Your task to perform on an android device: open app "Pinterest" (install if not already installed) and enter user name: "Switzerland@yahoo.com" and password: "arithmetics" Image 0: 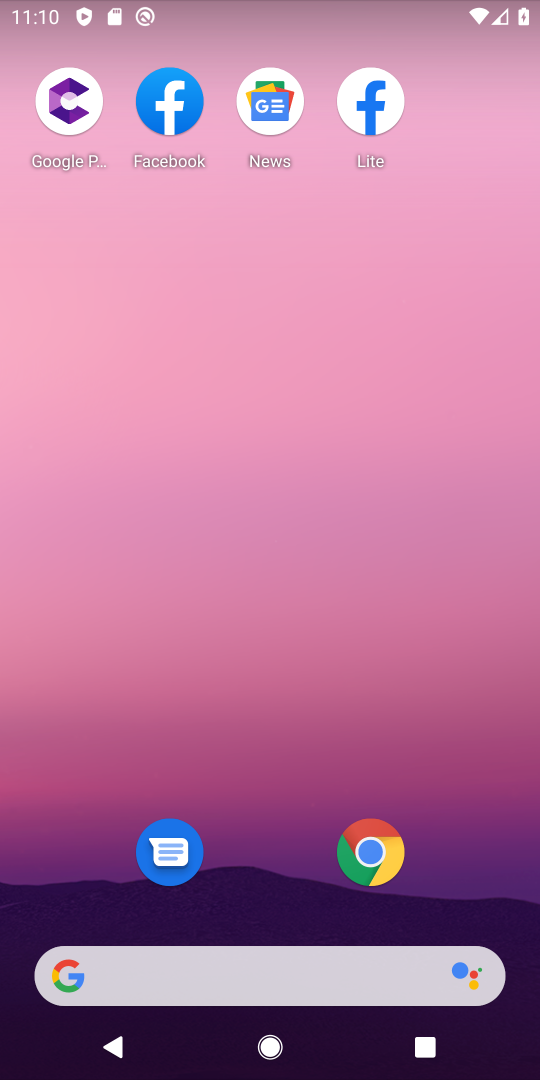
Step 0: drag from (223, 911) to (263, 114)
Your task to perform on an android device: open app "Pinterest" (install if not already installed) and enter user name: "Switzerland@yahoo.com" and password: "arithmetics" Image 1: 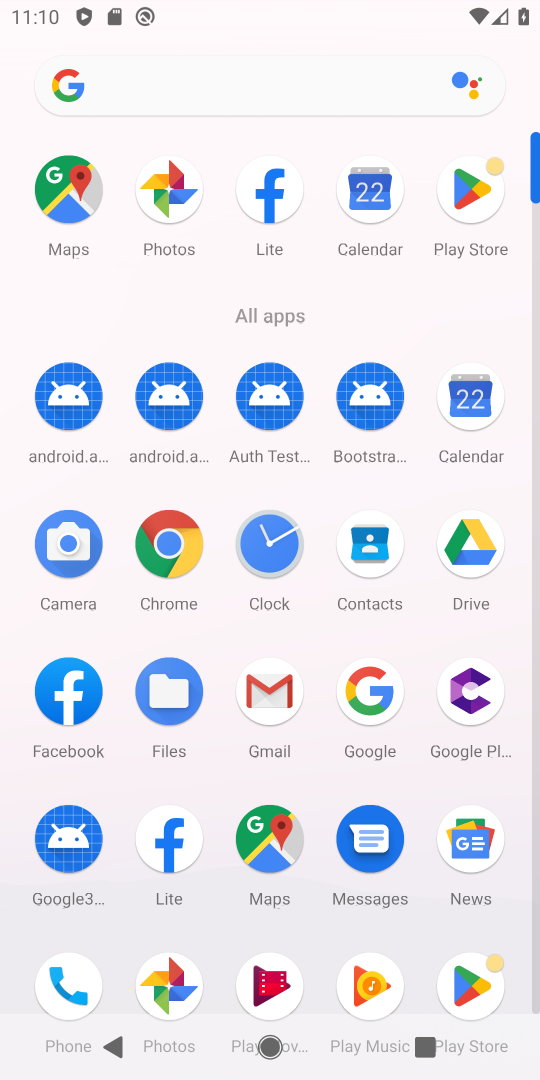
Step 1: click (471, 222)
Your task to perform on an android device: open app "Pinterest" (install if not already installed) and enter user name: "Switzerland@yahoo.com" and password: "arithmetics" Image 2: 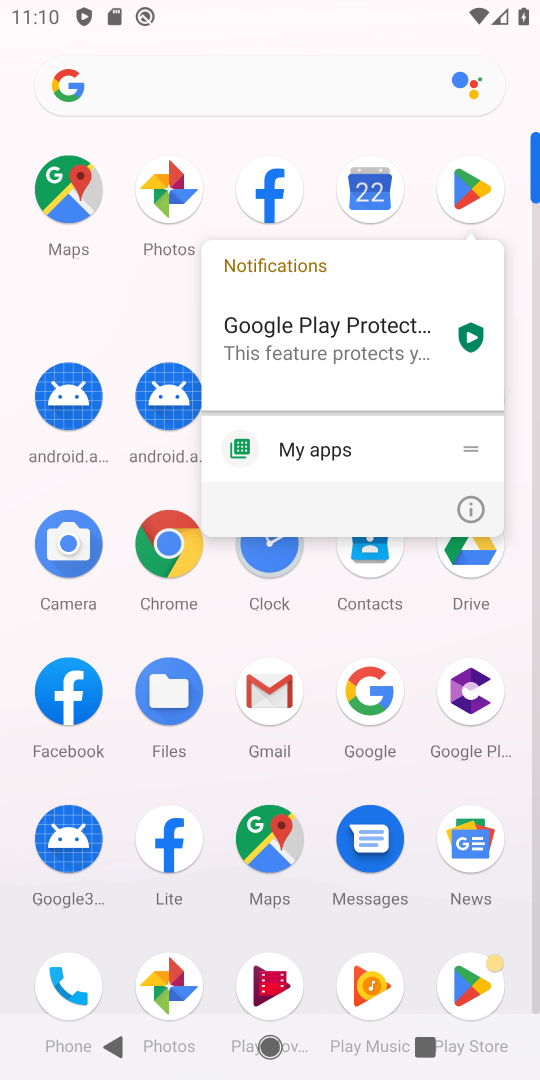
Step 2: click (458, 167)
Your task to perform on an android device: open app "Pinterest" (install if not already installed) and enter user name: "Switzerland@yahoo.com" and password: "arithmetics" Image 3: 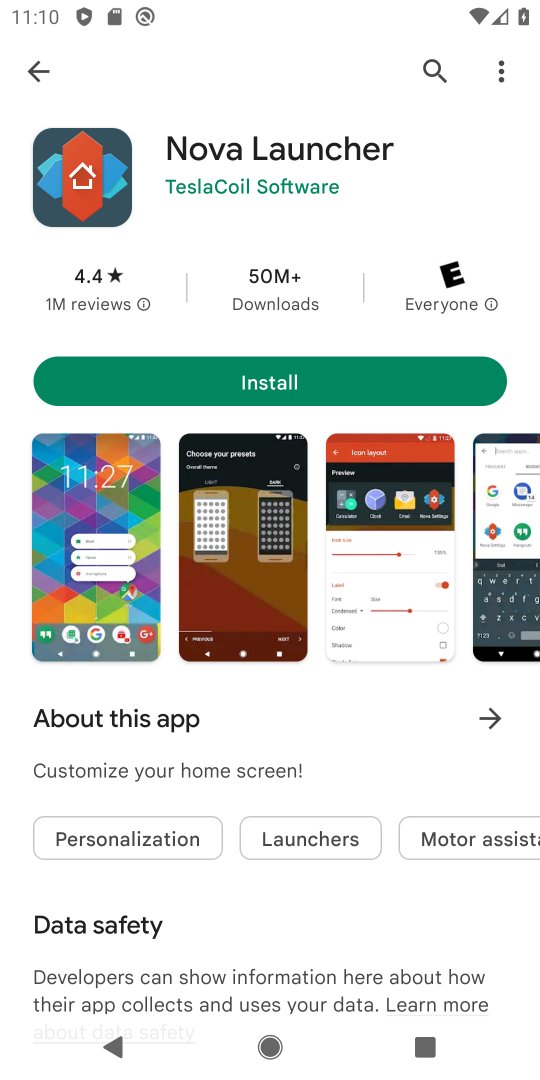
Step 3: click (28, 68)
Your task to perform on an android device: open app "Pinterest" (install if not already installed) and enter user name: "Switzerland@yahoo.com" and password: "arithmetics" Image 4: 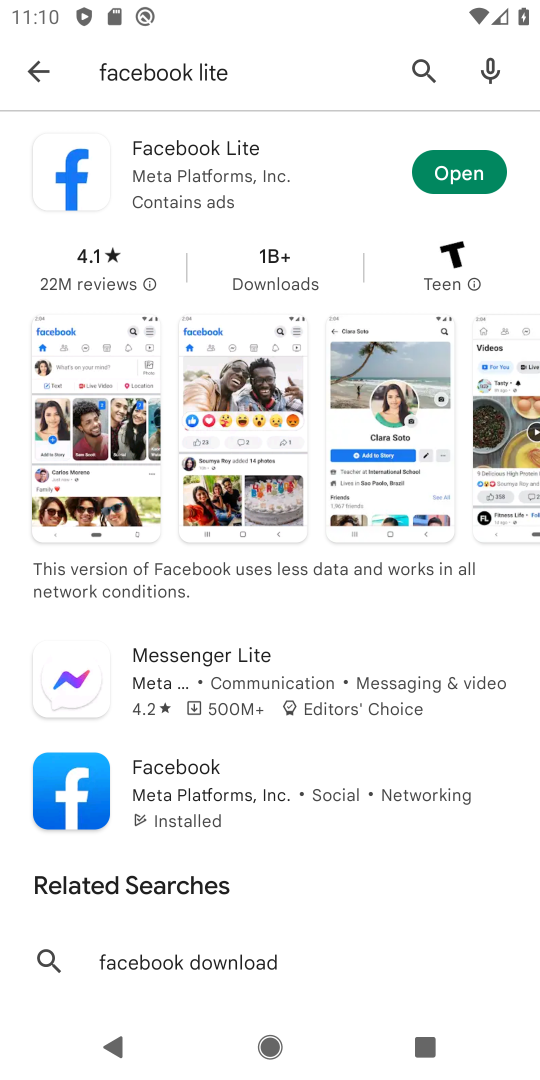
Step 4: click (208, 56)
Your task to perform on an android device: open app "Pinterest" (install if not already installed) and enter user name: "Switzerland@yahoo.com" and password: "arithmetics" Image 5: 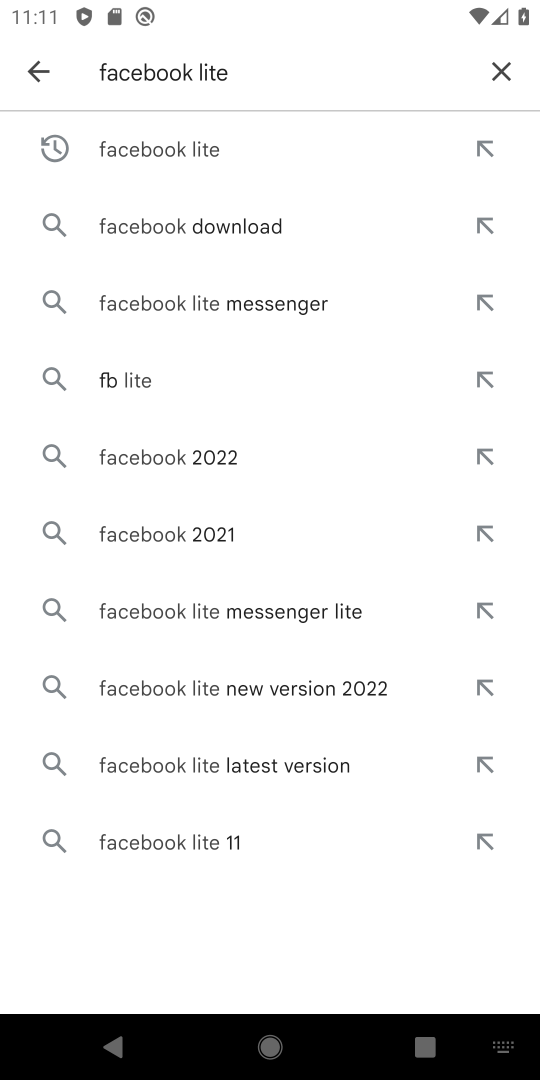
Step 5: click (482, 64)
Your task to perform on an android device: open app "Pinterest" (install if not already installed) and enter user name: "Switzerland@yahoo.com" and password: "arithmetics" Image 6: 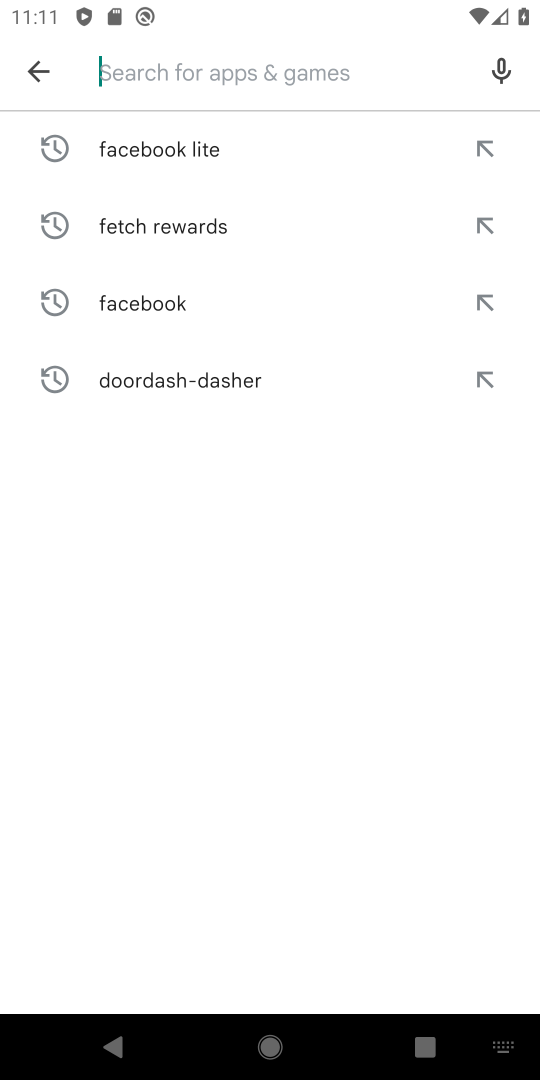
Step 6: type "Pinterest"
Your task to perform on an android device: open app "Pinterest" (install if not already installed) and enter user name: "Switzerland@yahoo.com" and password: "arithmetics" Image 7: 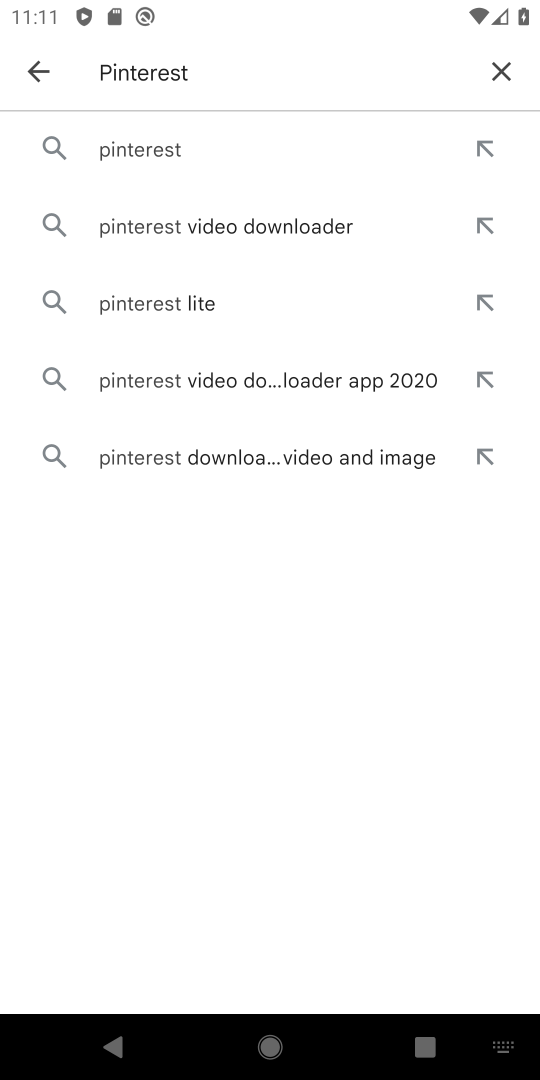
Step 7: click (202, 153)
Your task to perform on an android device: open app "Pinterest" (install if not already installed) and enter user name: "Switzerland@yahoo.com" and password: "arithmetics" Image 8: 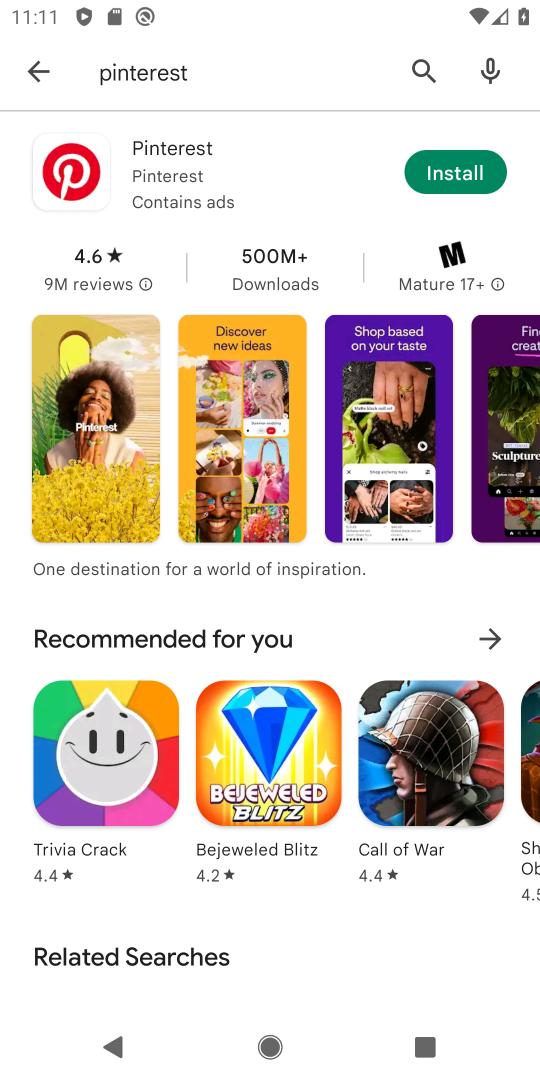
Step 8: click (443, 159)
Your task to perform on an android device: open app "Pinterest" (install if not already installed) and enter user name: "Switzerland@yahoo.com" and password: "arithmetics" Image 9: 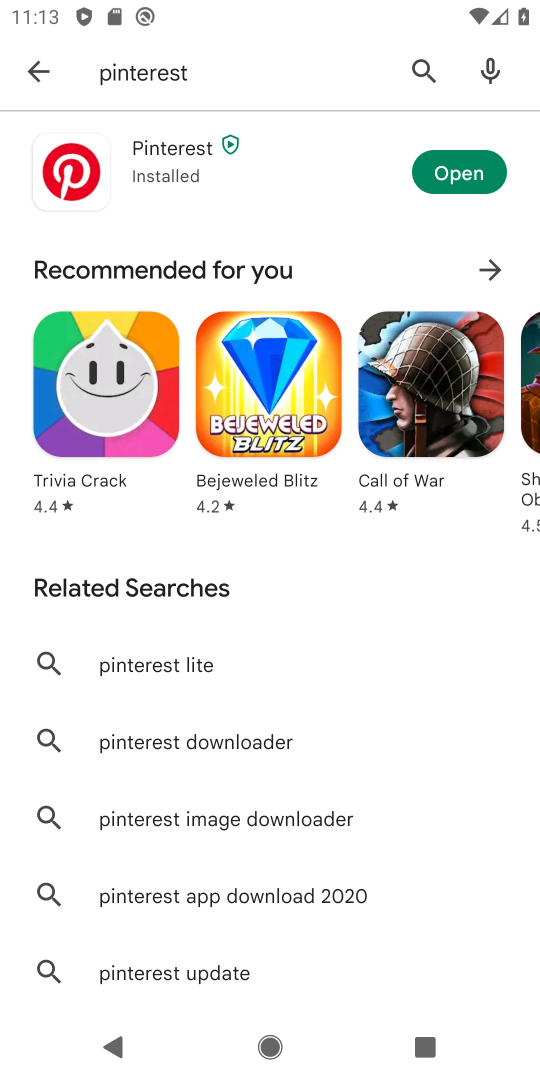
Step 9: click (479, 163)
Your task to perform on an android device: open app "Pinterest" (install if not already installed) and enter user name: "Switzerland@yahoo.com" and password: "arithmetics" Image 10: 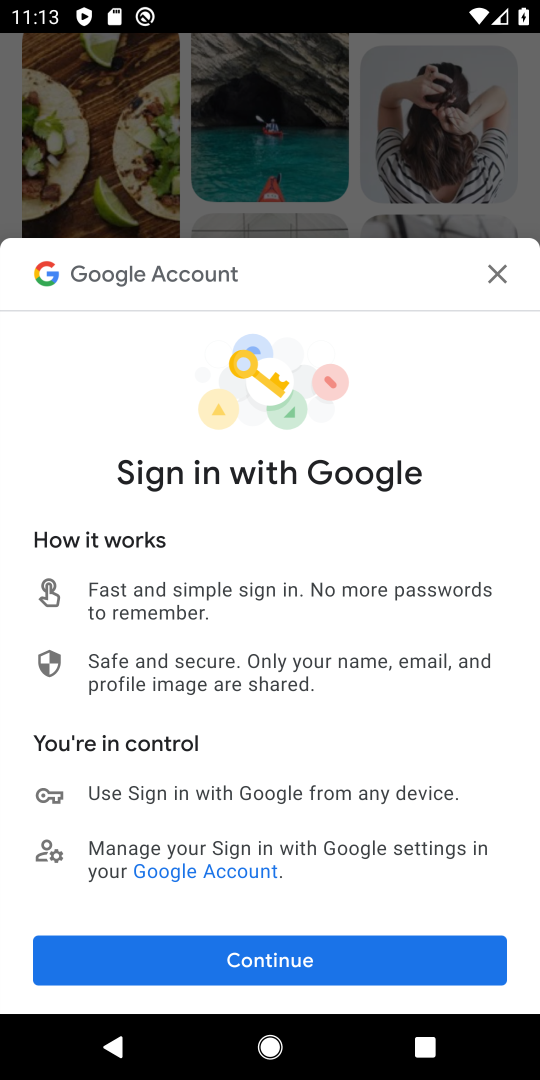
Step 10: click (295, 949)
Your task to perform on an android device: open app "Pinterest" (install if not already installed) and enter user name: "Switzerland@yahoo.com" and password: "arithmetics" Image 11: 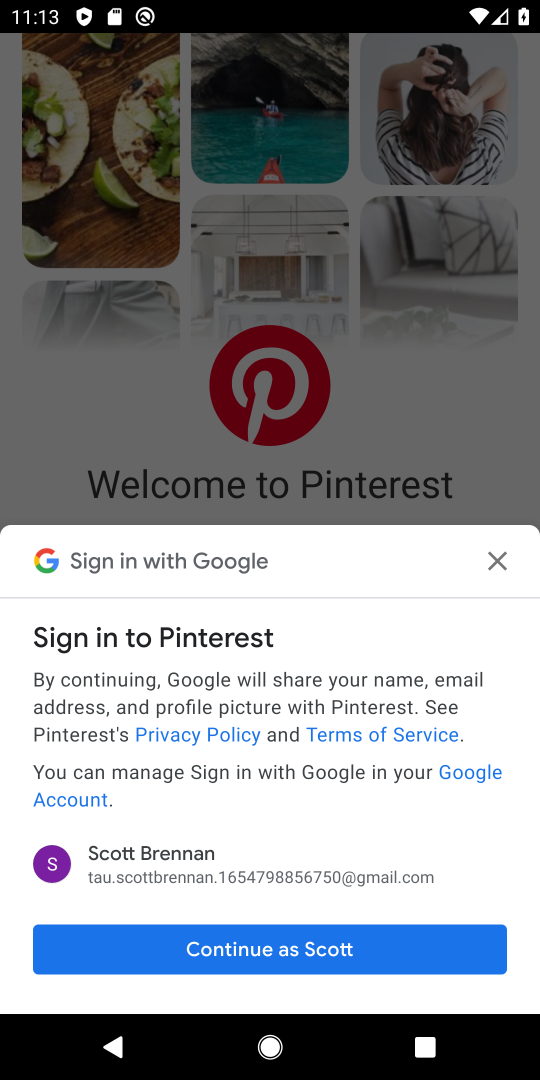
Step 11: click (504, 555)
Your task to perform on an android device: open app "Pinterest" (install if not already installed) and enter user name: "Switzerland@yahoo.com" and password: "arithmetics" Image 12: 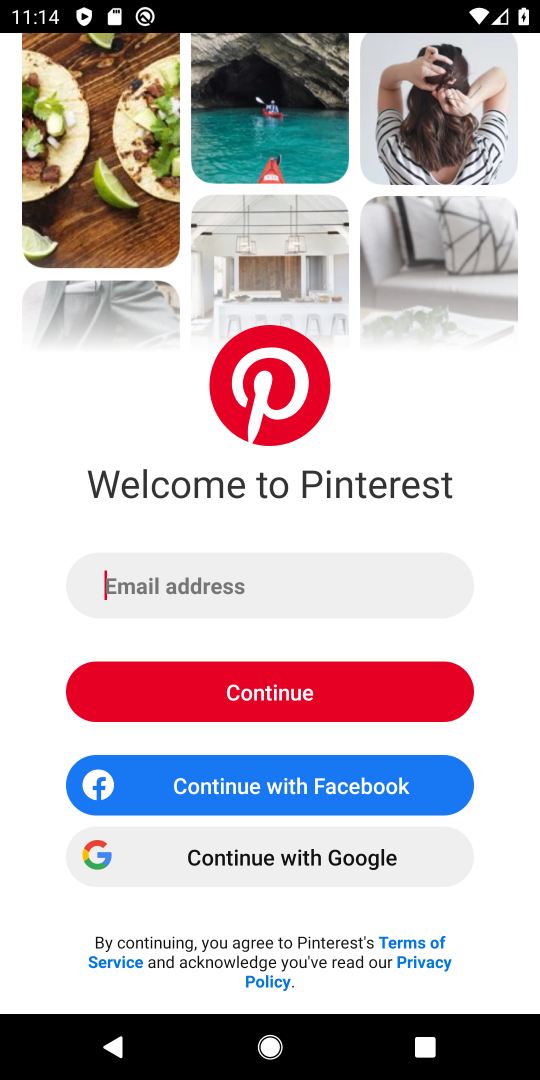
Step 12: type "Switzerland@yahoo.com"
Your task to perform on an android device: open app "Pinterest" (install if not already installed) and enter user name: "Switzerland@yahoo.com" and password: "arithmetics" Image 13: 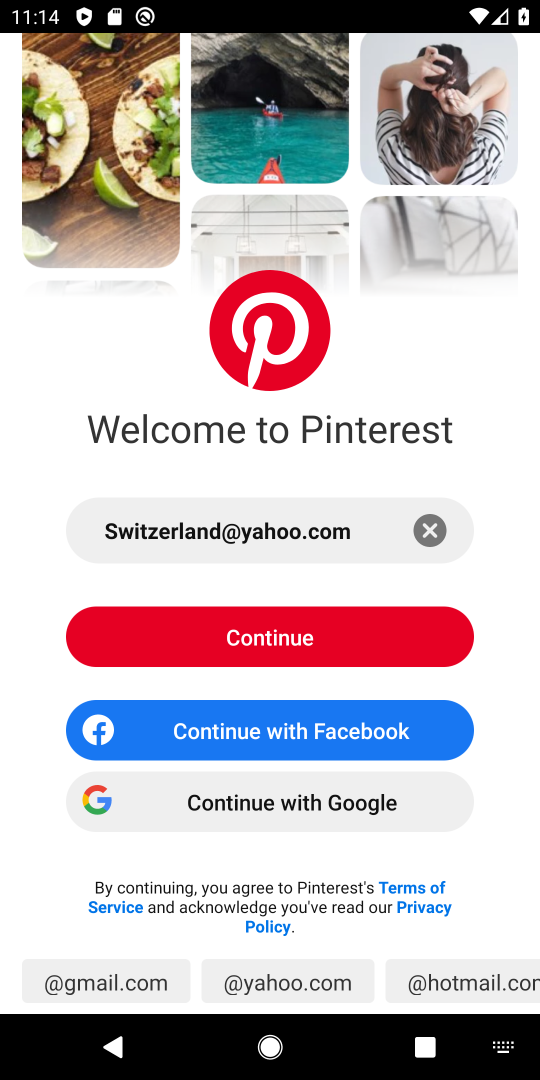
Step 13: click (356, 649)
Your task to perform on an android device: open app "Pinterest" (install if not already installed) and enter user name: "Switzerland@yahoo.com" and password: "arithmetics" Image 14: 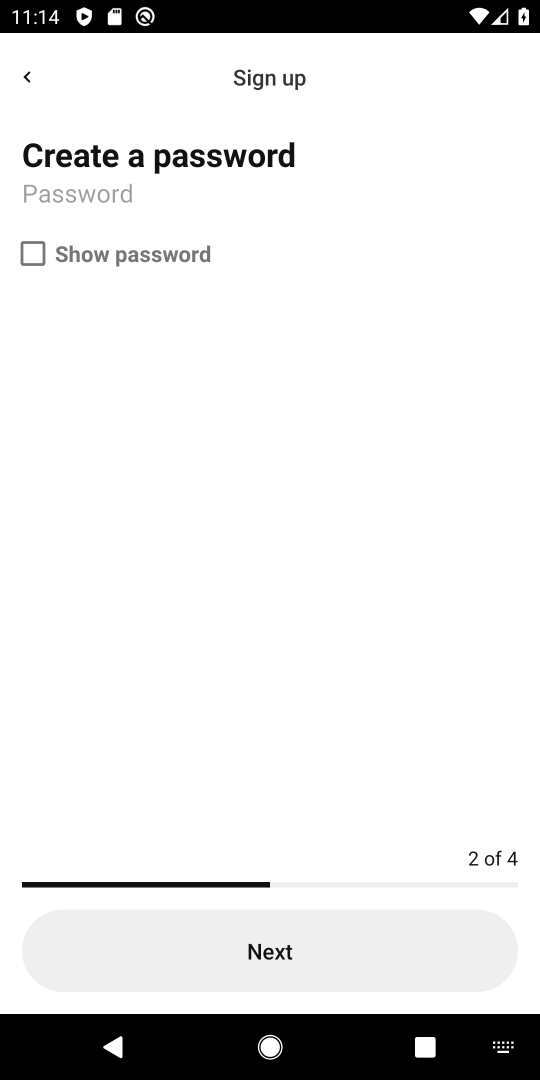
Step 14: type "arithmetics"
Your task to perform on an android device: open app "Pinterest" (install if not already installed) and enter user name: "Switzerland@yahoo.com" and password: "arithmetics" Image 15: 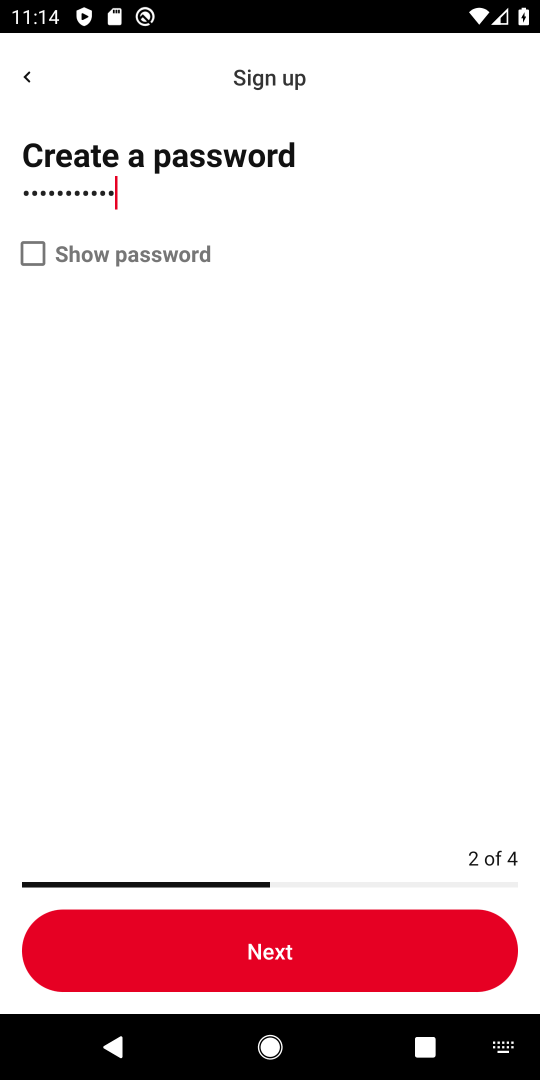
Step 15: click (36, 258)
Your task to perform on an android device: open app "Pinterest" (install if not already installed) and enter user name: "Switzerland@yahoo.com" and password: "arithmetics" Image 16: 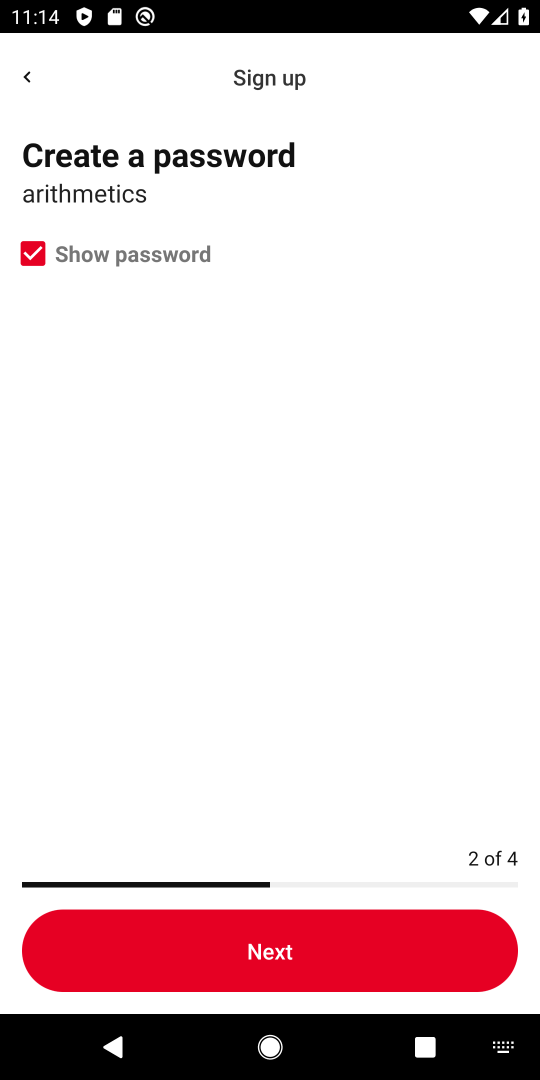
Step 16: click (360, 947)
Your task to perform on an android device: open app "Pinterest" (install if not already installed) and enter user name: "Switzerland@yahoo.com" and password: "arithmetics" Image 17: 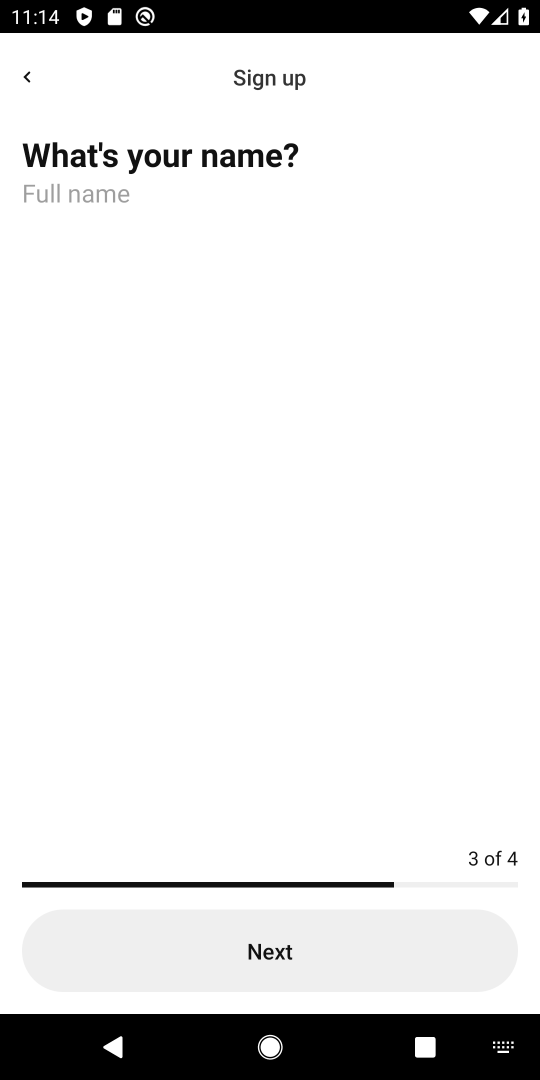
Step 17: click (28, 68)
Your task to perform on an android device: open app "Pinterest" (install if not already installed) and enter user name: "Switzerland@yahoo.com" and password: "arithmetics" Image 18: 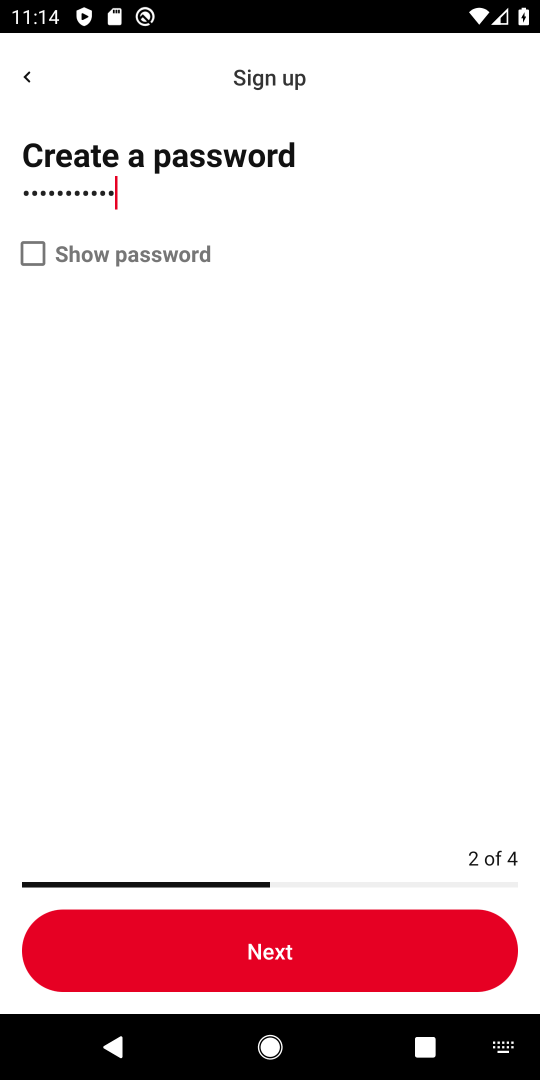
Step 18: click (28, 68)
Your task to perform on an android device: open app "Pinterest" (install if not already installed) and enter user name: "Switzerland@yahoo.com" and password: "arithmetics" Image 19: 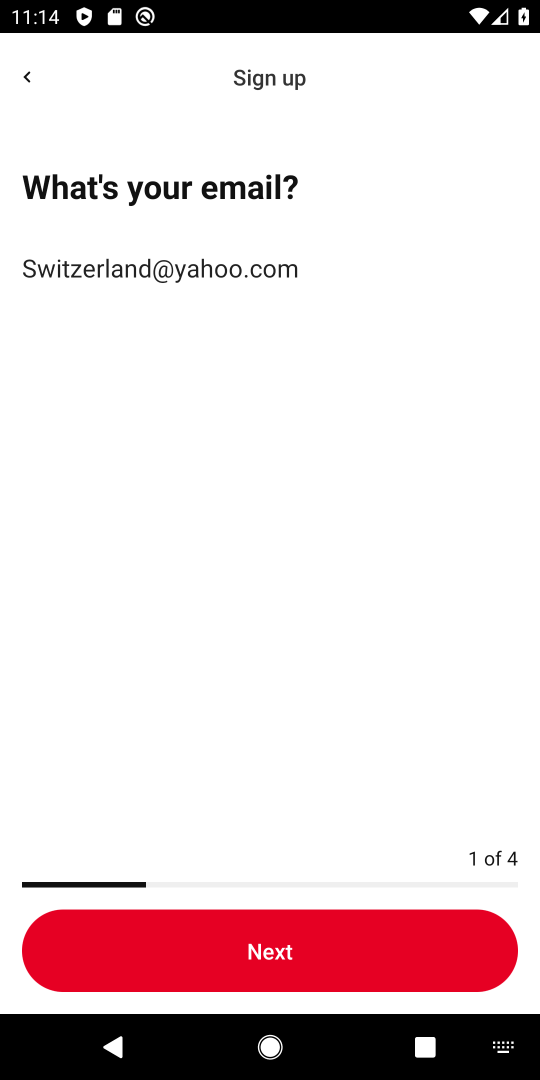
Step 19: click (28, 68)
Your task to perform on an android device: open app "Pinterest" (install if not already installed) and enter user name: "Switzerland@yahoo.com" and password: "arithmetics" Image 20: 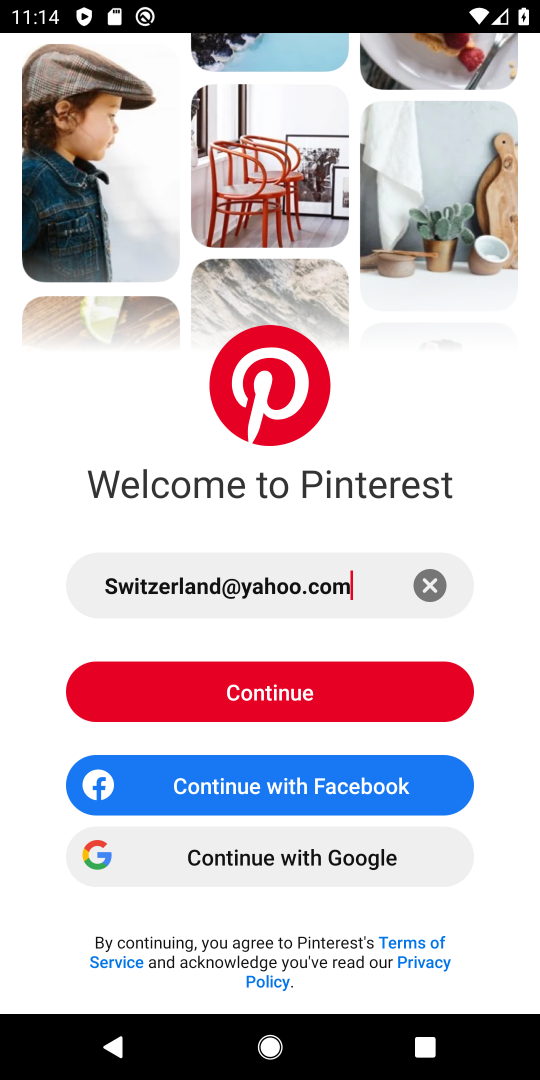
Step 20: drag from (371, 828) to (413, 545)
Your task to perform on an android device: open app "Pinterest" (install if not already installed) and enter user name: "Switzerland@yahoo.com" and password: "arithmetics" Image 21: 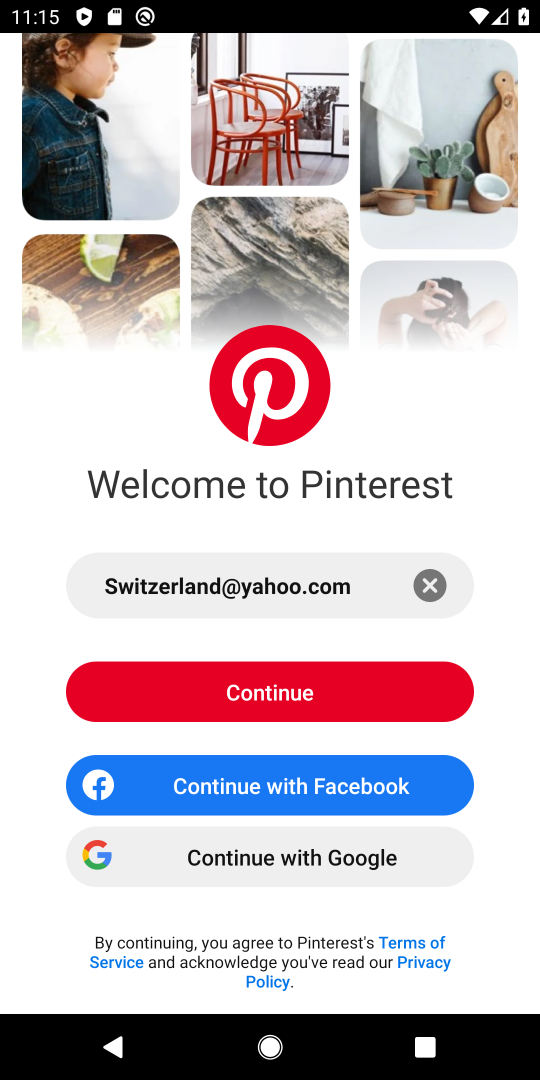
Step 21: click (391, 667)
Your task to perform on an android device: open app "Pinterest" (install if not already installed) and enter user name: "Switzerland@yahoo.com" and password: "arithmetics" Image 22: 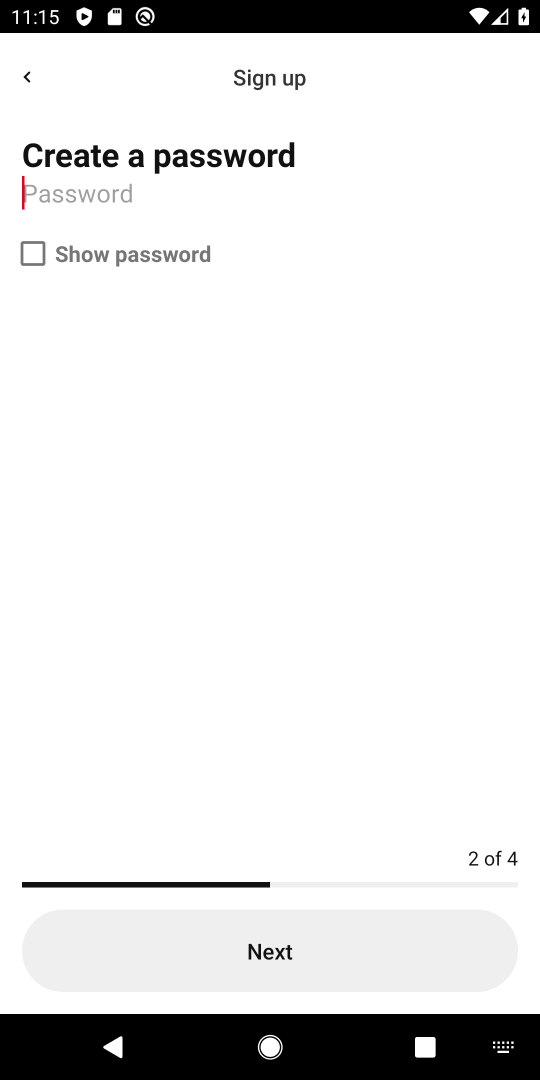
Step 22: type "arithmetics"
Your task to perform on an android device: open app "Pinterest" (install if not already installed) and enter user name: "Switzerland@yahoo.com" and password: "arithmetics" Image 23: 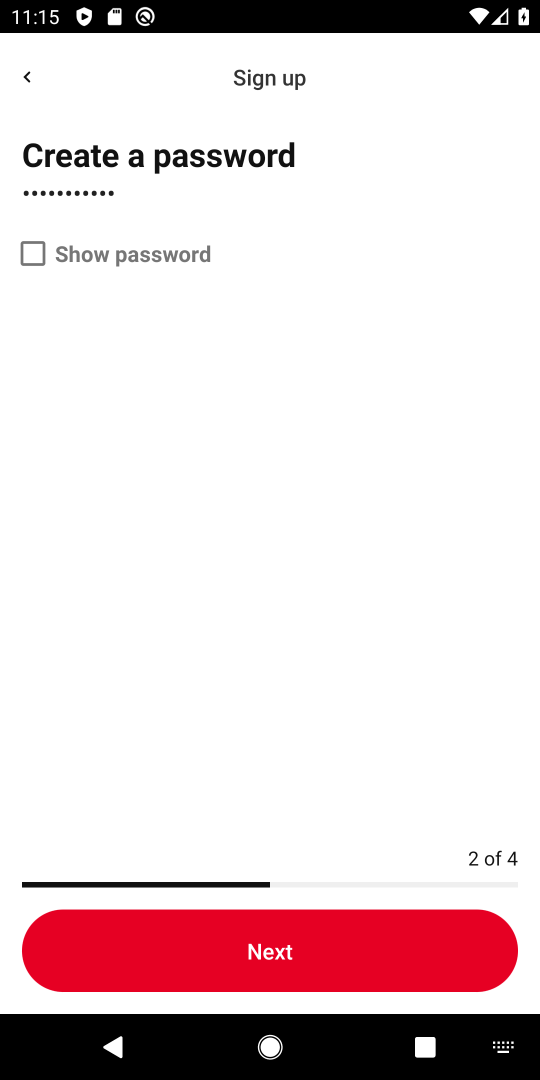
Step 23: click (438, 944)
Your task to perform on an android device: open app "Pinterest" (install if not already installed) and enter user name: "Switzerland@yahoo.com" and password: "arithmetics" Image 24: 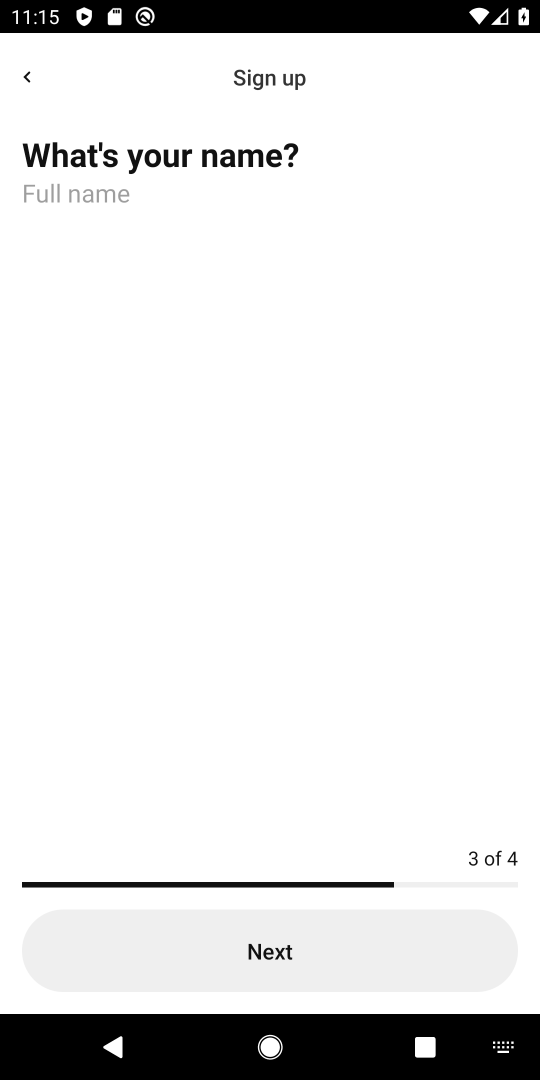
Step 24: click (121, 193)
Your task to perform on an android device: open app "Pinterest" (install if not already installed) and enter user name: "Switzerland@yahoo.com" and password: "arithmetics" Image 25: 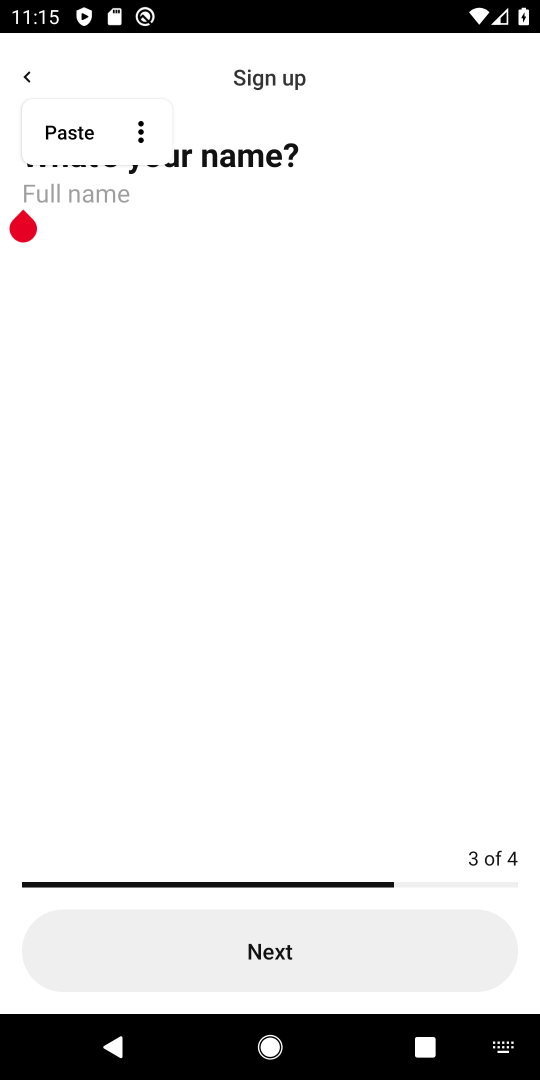
Step 25: type "Punja"
Your task to perform on an android device: open app "Pinterest" (install if not already installed) and enter user name: "Switzerland@yahoo.com" and password: "arithmetics" Image 26: 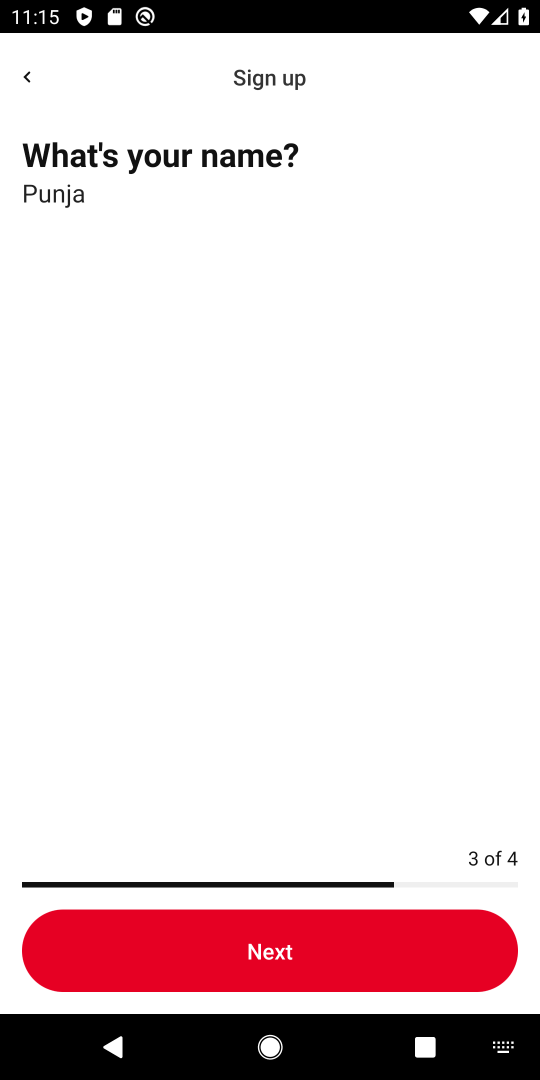
Step 26: click (412, 940)
Your task to perform on an android device: open app "Pinterest" (install if not already installed) and enter user name: "Switzerland@yahoo.com" and password: "arithmetics" Image 27: 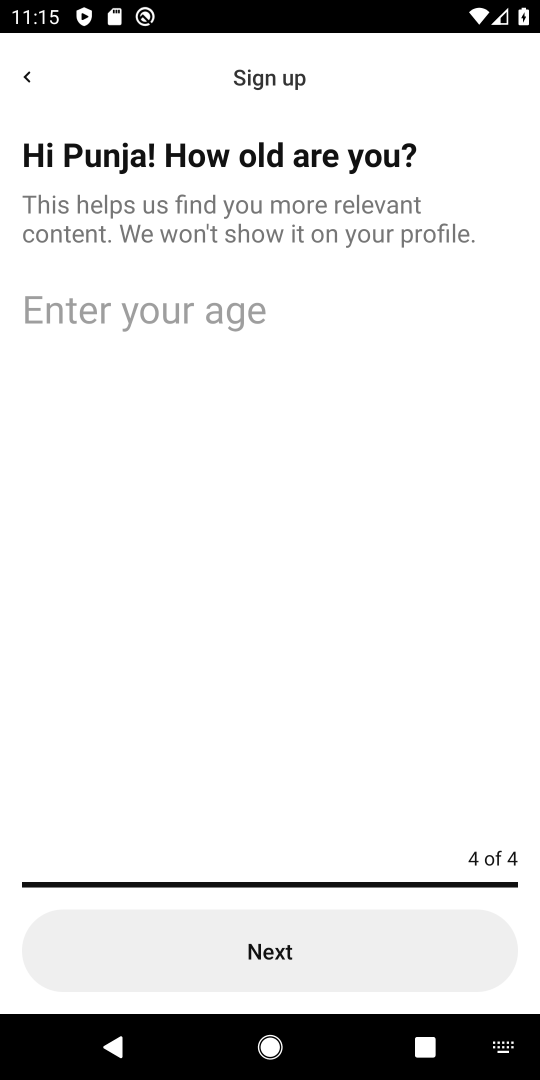
Step 27: type "29"
Your task to perform on an android device: open app "Pinterest" (install if not already installed) and enter user name: "Switzerland@yahoo.com" and password: "arithmetics" Image 28: 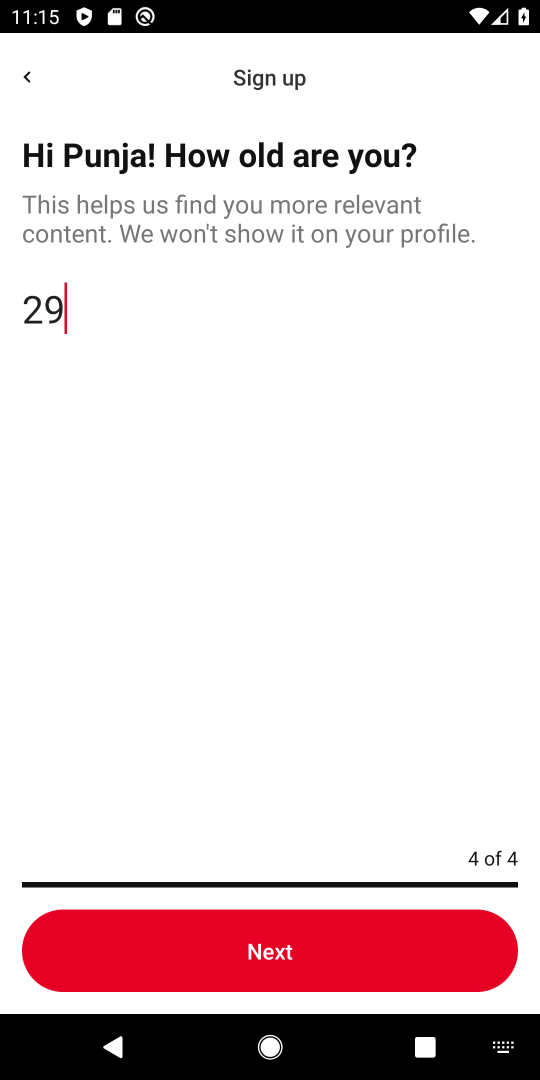
Step 28: type ""
Your task to perform on an android device: open app "Pinterest" (install if not already installed) and enter user name: "Switzerland@yahoo.com" and password: "arithmetics" Image 29: 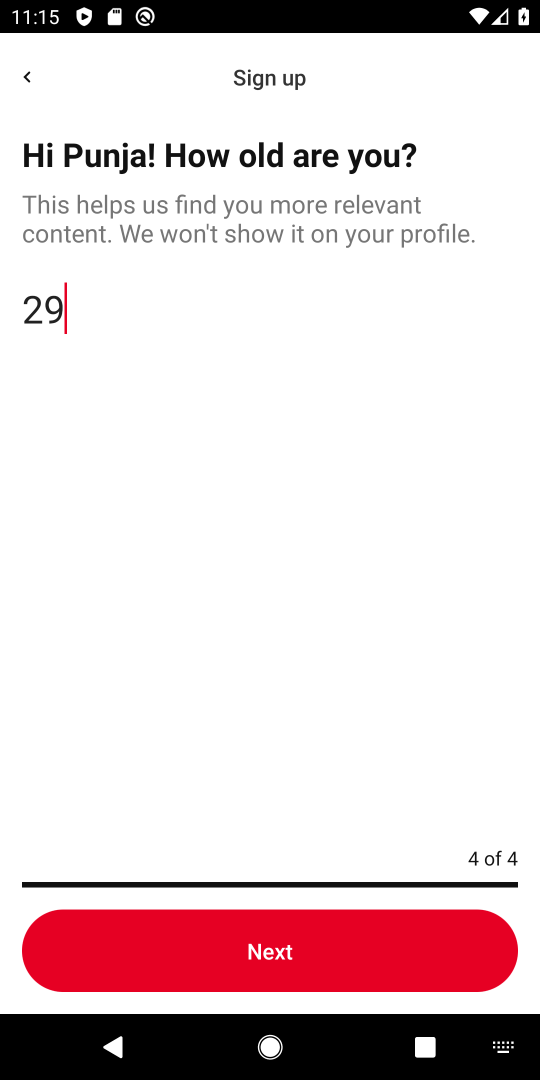
Step 29: click (368, 952)
Your task to perform on an android device: open app "Pinterest" (install if not already installed) and enter user name: "Switzerland@yahoo.com" and password: "arithmetics" Image 30: 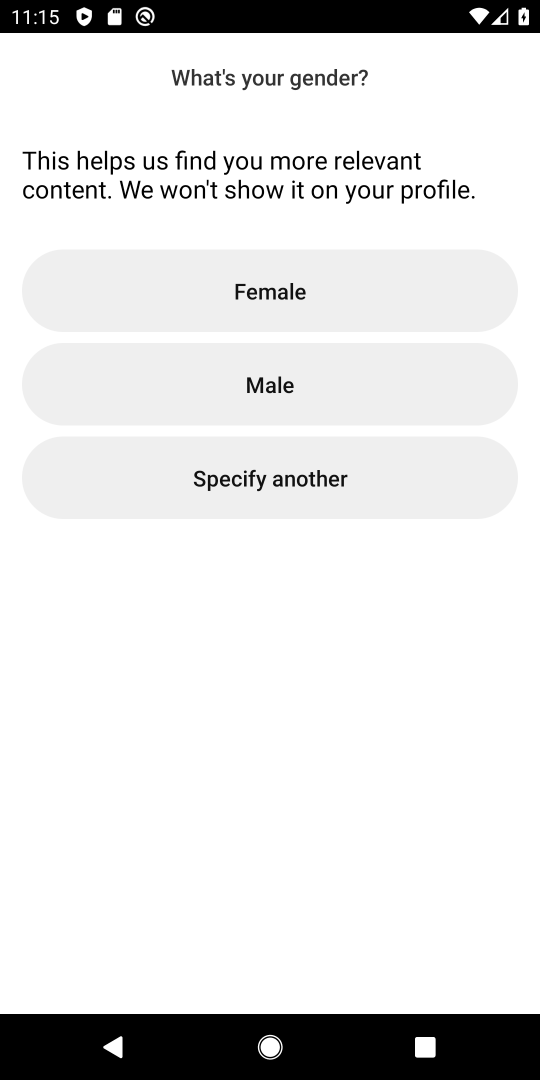
Step 30: click (321, 397)
Your task to perform on an android device: open app "Pinterest" (install if not already installed) and enter user name: "Switzerland@yahoo.com" and password: "arithmetics" Image 31: 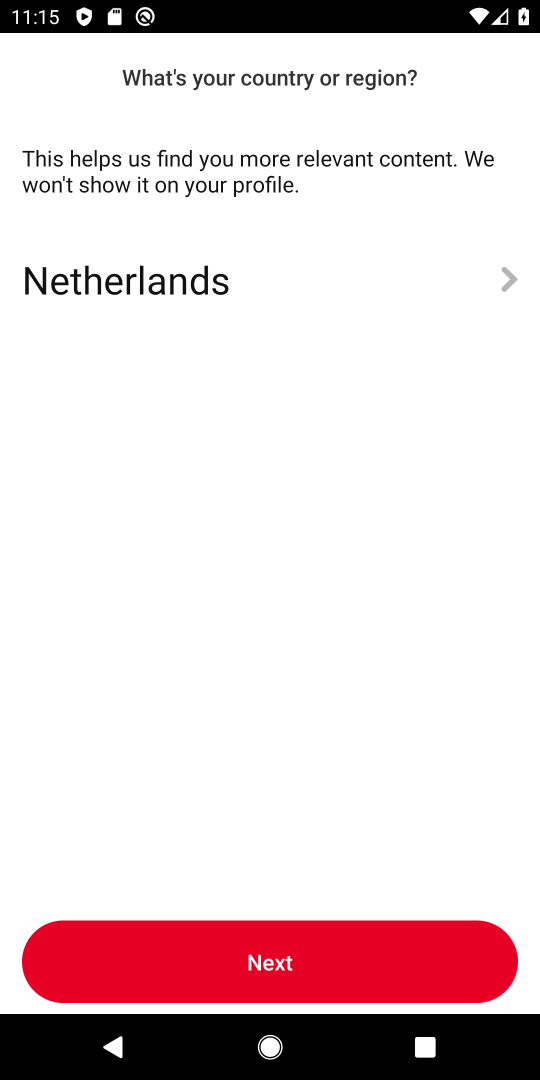
Step 31: click (319, 978)
Your task to perform on an android device: open app "Pinterest" (install if not already installed) and enter user name: "Switzerland@yahoo.com" and password: "arithmetics" Image 32: 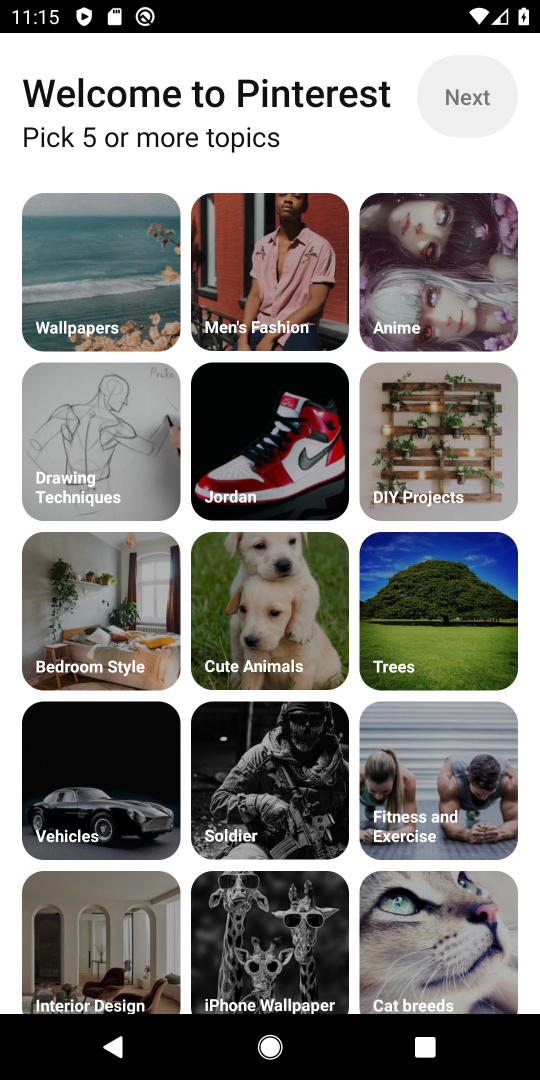
Step 32: drag from (93, 271) to (242, 290)
Your task to perform on an android device: open app "Pinterest" (install if not already installed) and enter user name: "Switzerland@yahoo.com" and password: "arithmetics" Image 33: 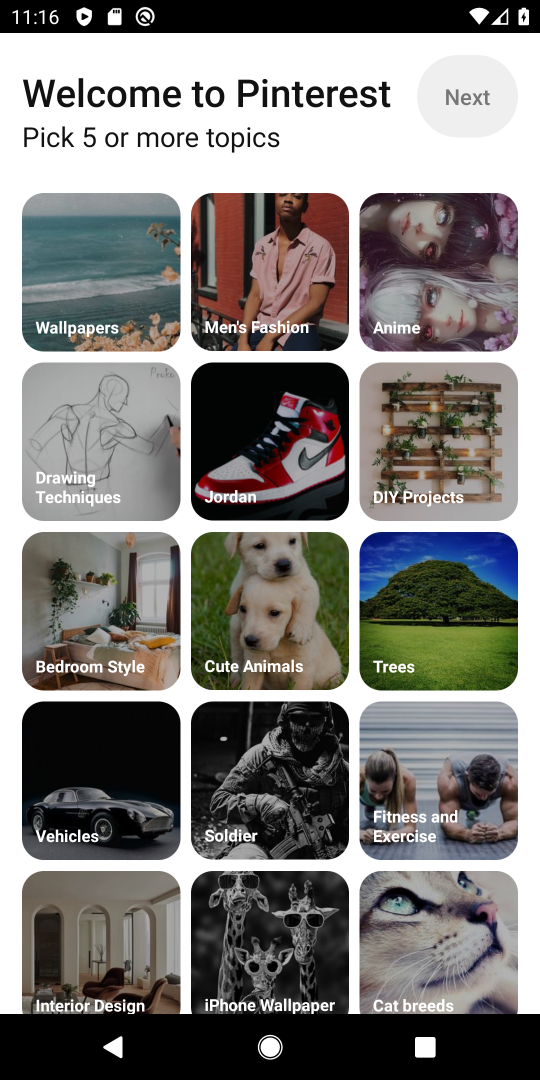
Step 33: click (422, 277)
Your task to perform on an android device: open app "Pinterest" (install if not already installed) and enter user name: "Switzerland@yahoo.com" and password: "arithmetics" Image 34: 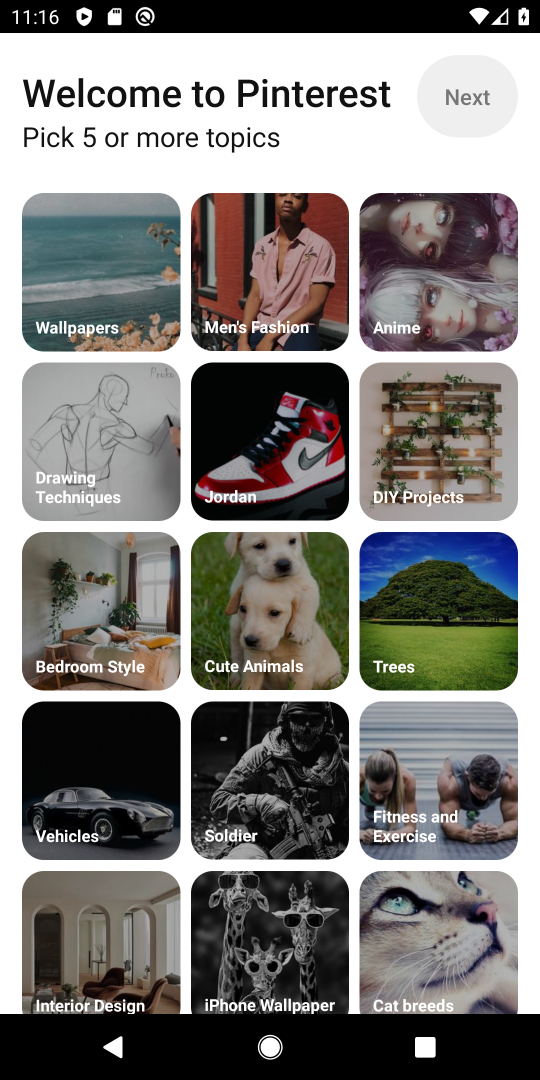
Step 34: click (280, 391)
Your task to perform on an android device: open app "Pinterest" (install if not already installed) and enter user name: "Switzerland@yahoo.com" and password: "arithmetics" Image 35: 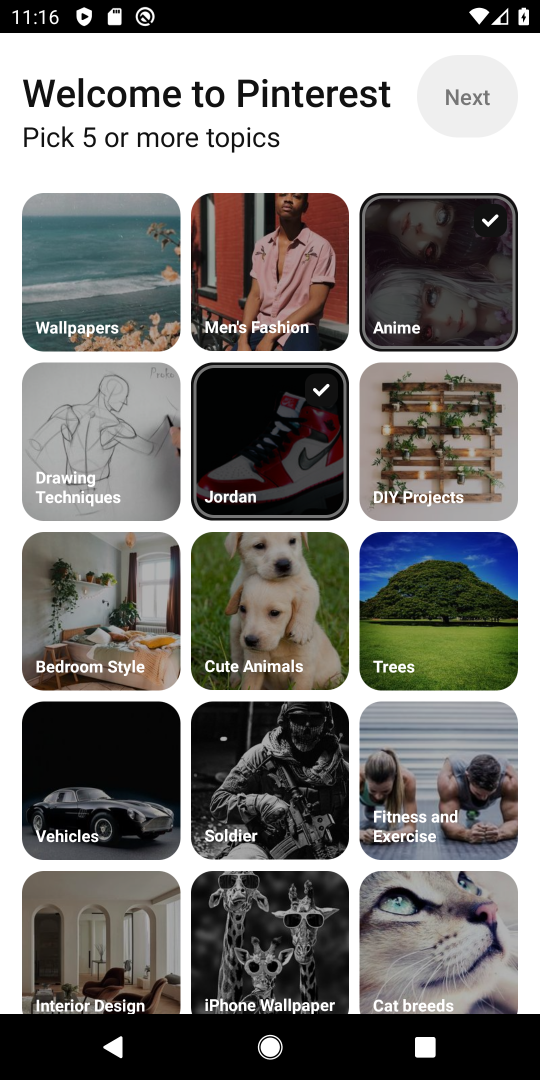
Step 35: drag from (78, 434) to (100, 191)
Your task to perform on an android device: open app "Pinterest" (install if not already installed) and enter user name: "Switzerland@yahoo.com" and password: "arithmetics" Image 36: 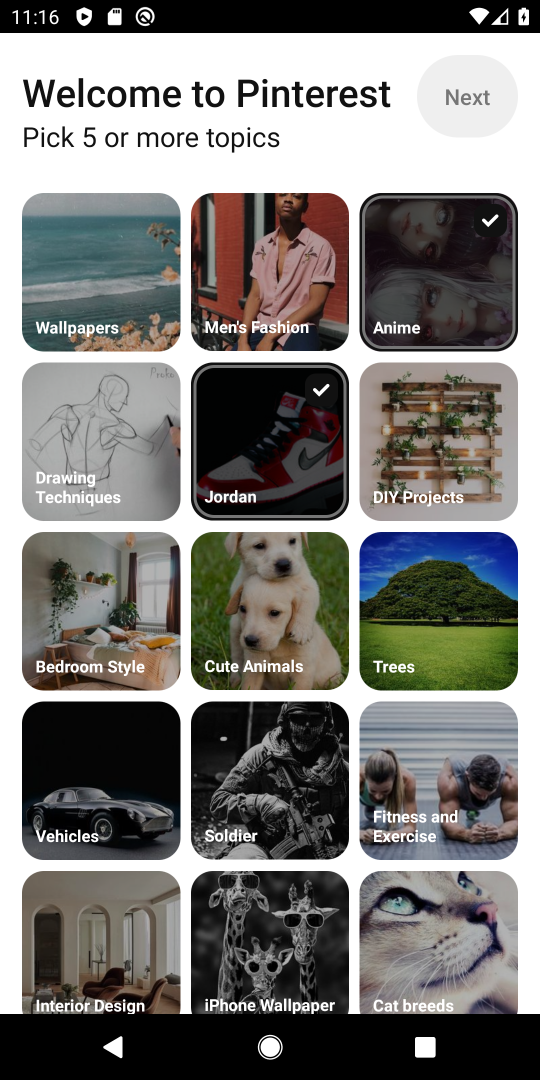
Step 36: click (299, 244)
Your task to perform on an android device: open app "Pinterest" (install if not already installed) and enter user name: "Switzerland@yahoo.com" and password: "arithmetics" Image 37: 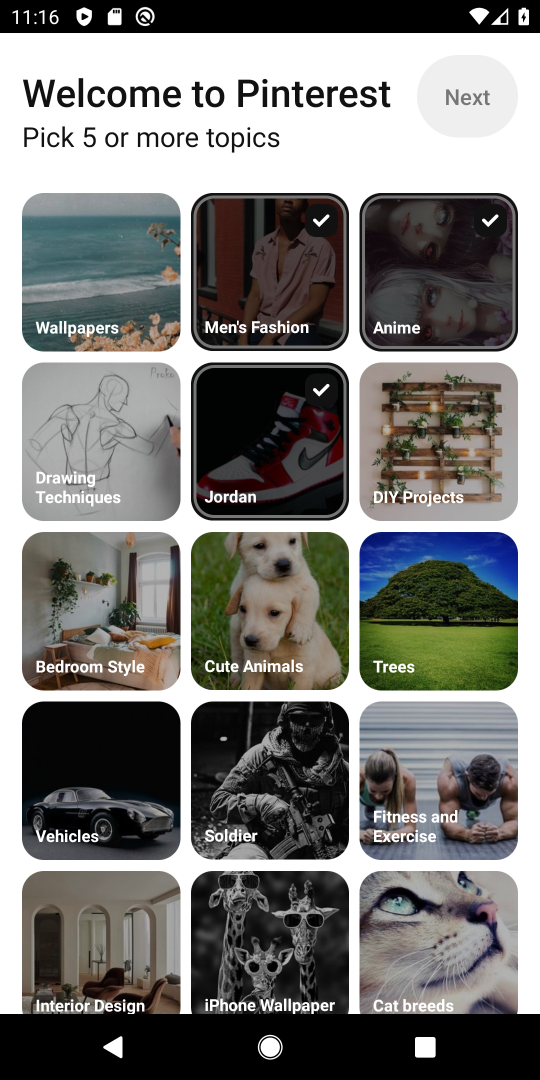
Step 37: click (57, 312)
Your task to perform on an android device: open app "Pinterest" (install if not already installed) and enter user name: "Switzerland@yahoo.com" and password: "arithmetics" Image 38: 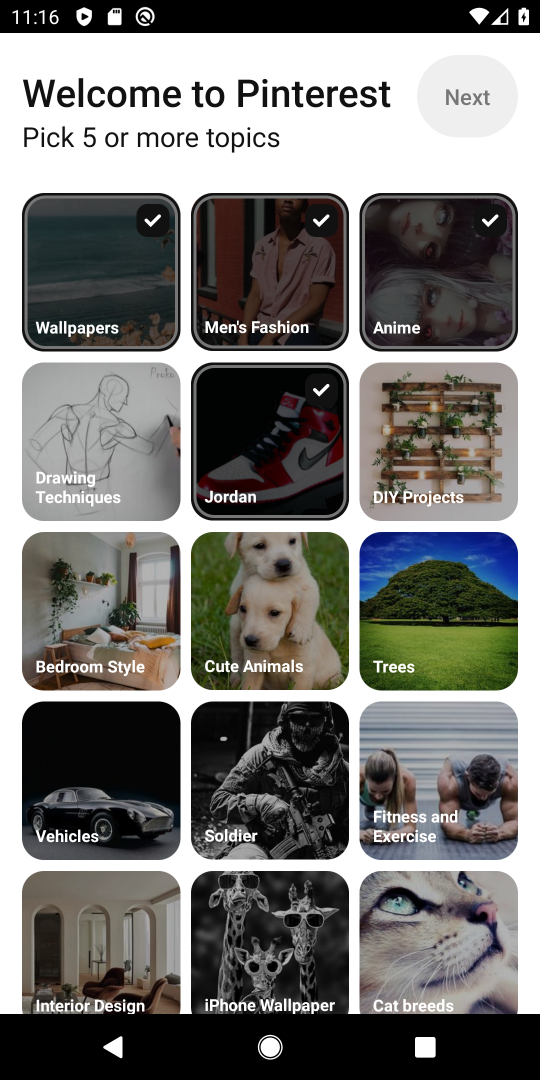
Step 38: click (131, 670)
Your task to perform on an android device: open app "Pinterest" (install if not already installed) and enter user name: "Switzerland@yahoo.com" and password: "arithmetics" Image 39: 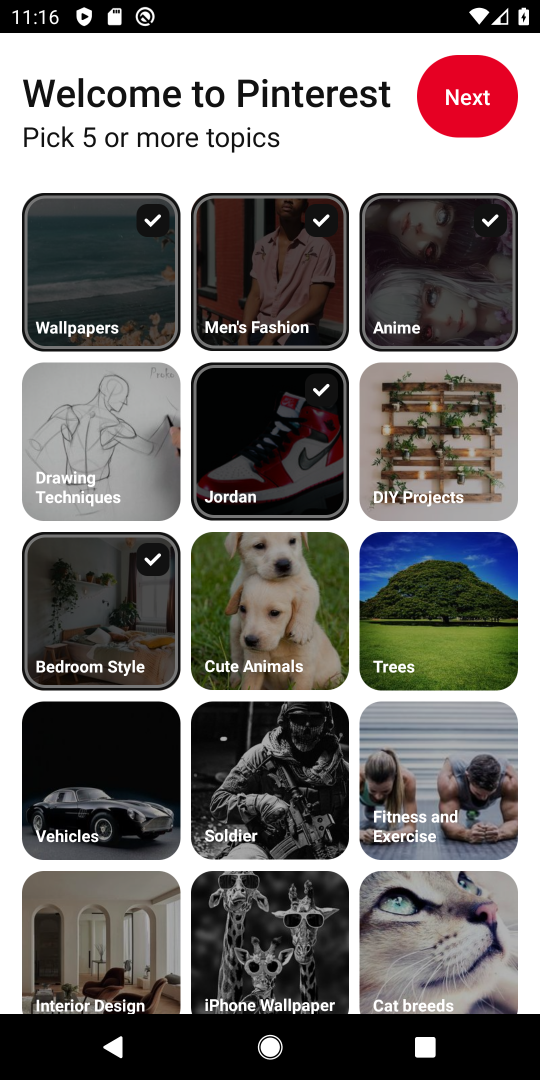
Step 39: click (385, 570)
Your task to perform on an android device: open app "Pinterest" (install if not already installed) and enter user name: "Switzerland@yahoo.com" and password: "arithmetics" Image 40: 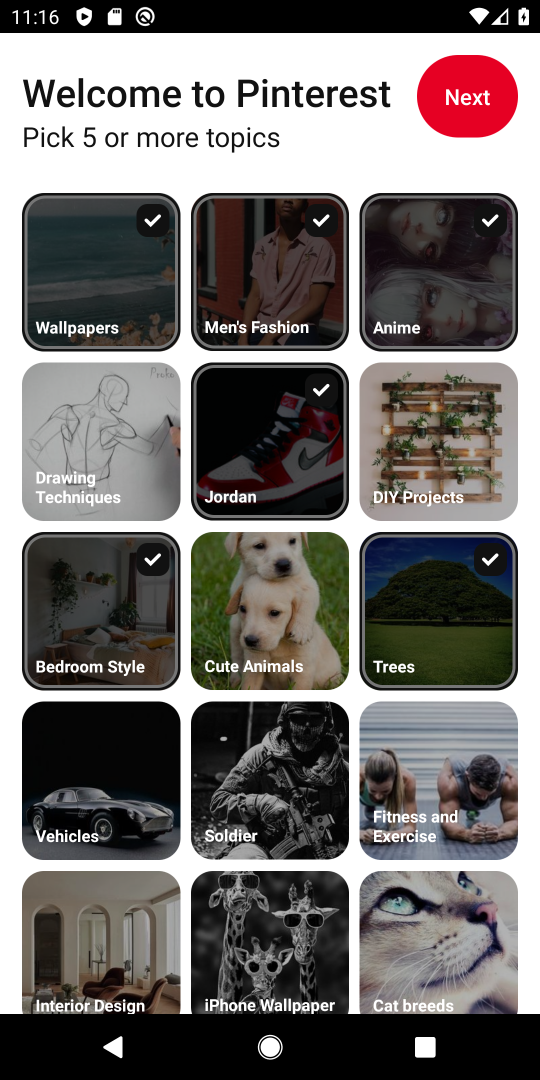
Step 40: click (481, 92)
Your task to perform on an android device: open app "Pinterest" (install if not already installed) and enter user name: "Switzerland@yahoo.com" and password: "arithmetics" Image 41: 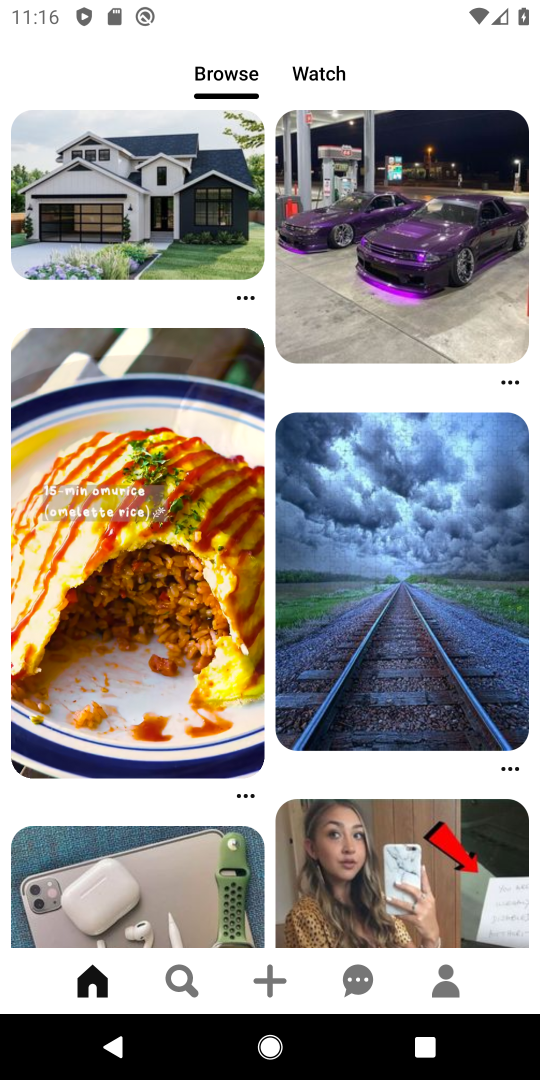
Step 41: task complete